Your task to perform on an android device: Show me popular videos on Youtube Image 0: 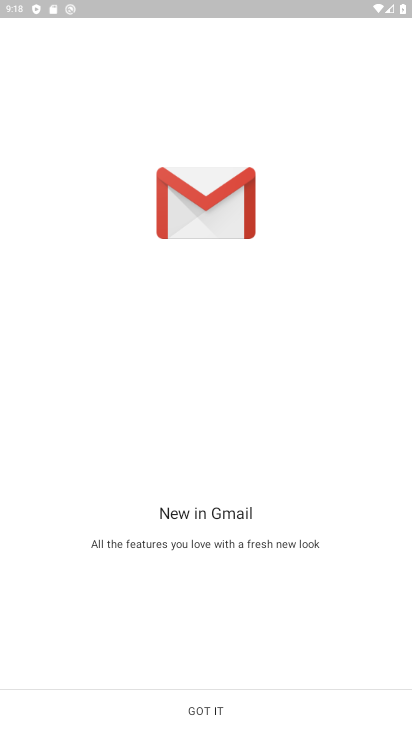
Step 0: click (220, 702)
Your task to perform on an android device: Show me popular videos on Youtube Image 1: 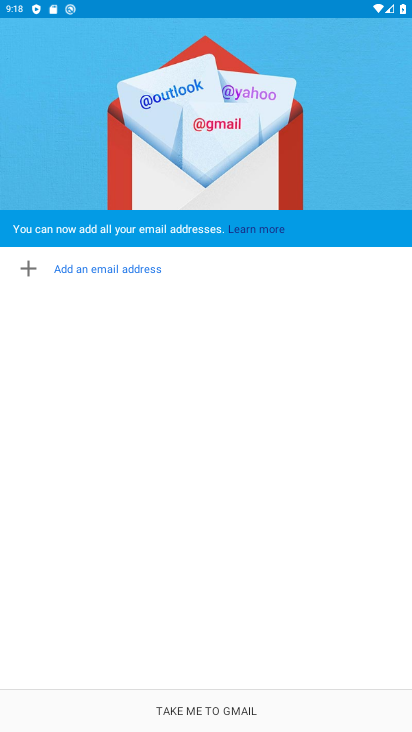
Step 1: press back button
Your task to perform on an android device: Show me popular videos on Youtube Image 2: 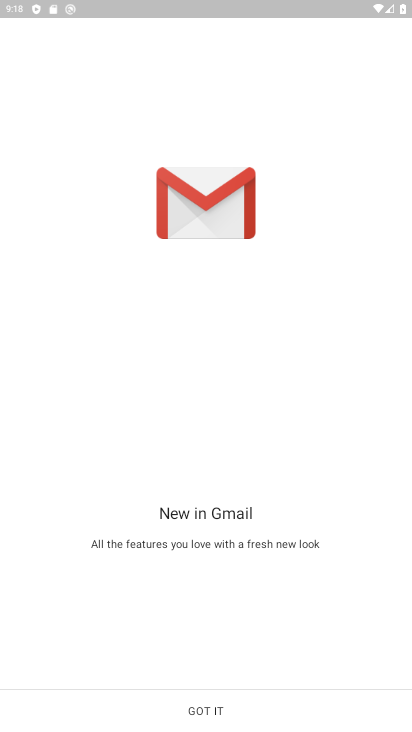
Step 2: press home button
Your task to perform on an android device: Show me popular videos on Youtube Image 3: 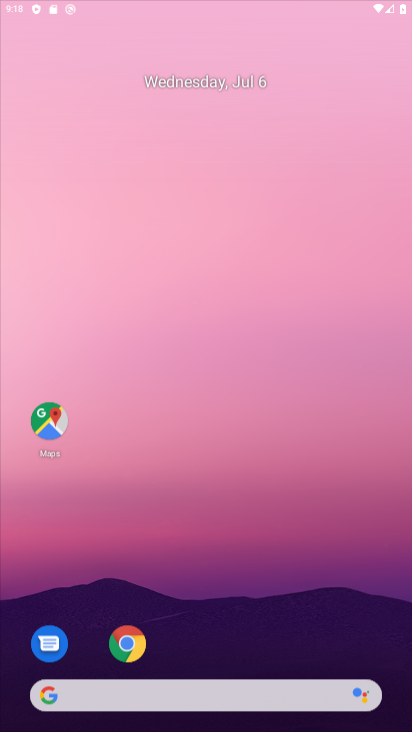
Step 3: click (195, 696)
Your task to perform on an android device: Show me popular videos on Youtube Image 4: 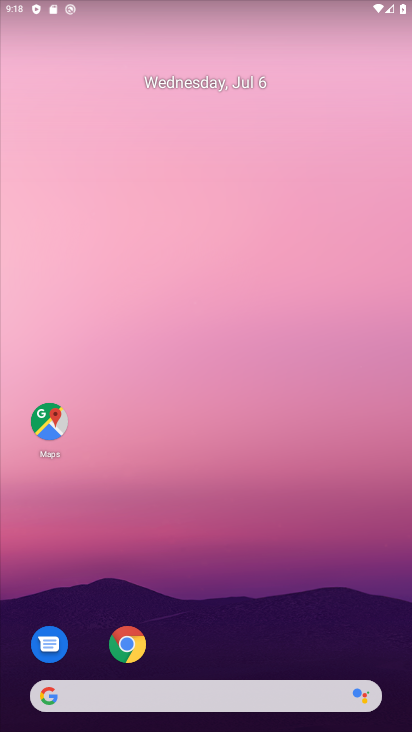
Step 4: drag from (199, 591) to (144, 135)
Your task to perform on an android device: Show me popular videos on Youtube Image 5: 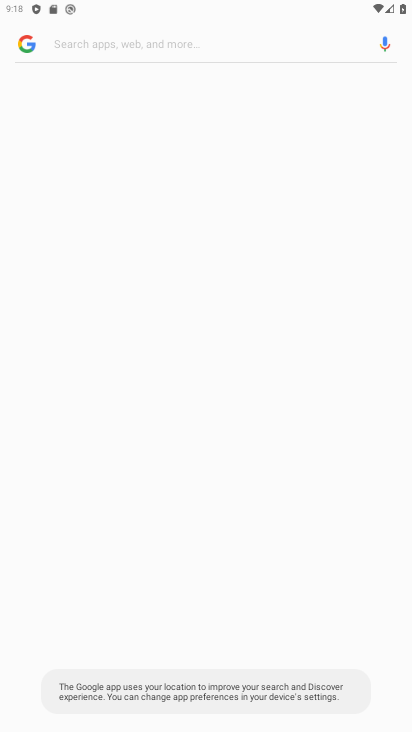
Step 5: press back button
Your task to perform on an android device: Show me popular videos on Youtube Image 6: 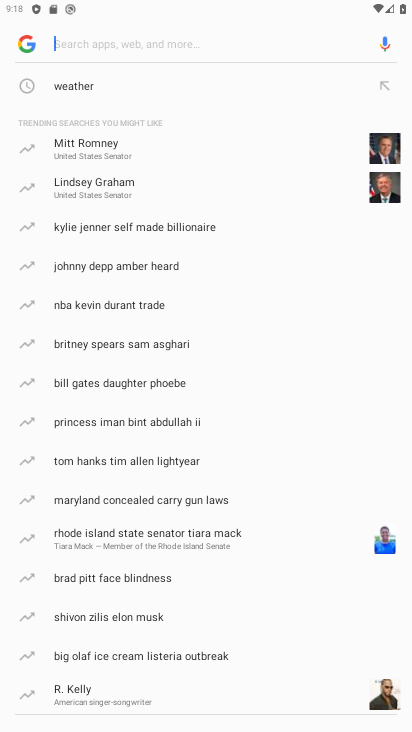
Step 6: press home button
Your task to perform on an android device: Show me popular videos on Youtube Image 7: 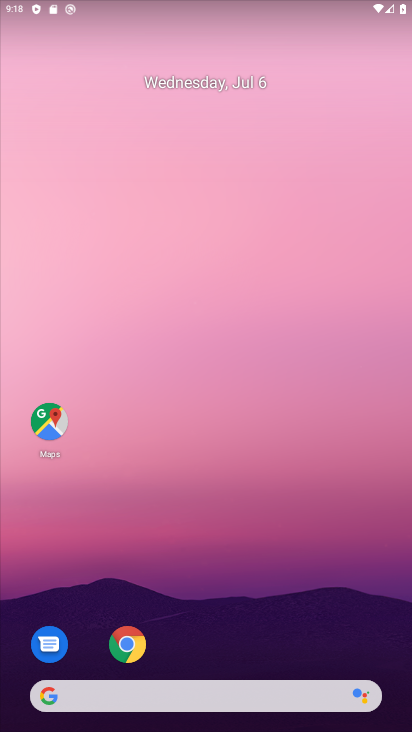
Step 7: press back button
Your task to perform on an android device: Show me popular videos on Youtube Image 8: 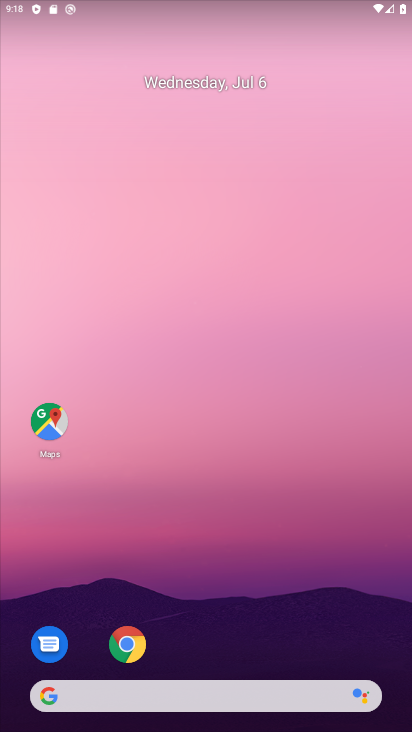
Step 8: drag from (301, 660) to (178, 208)
Your task to perform on an android device: Show me popular videos on Youtube Image 9: 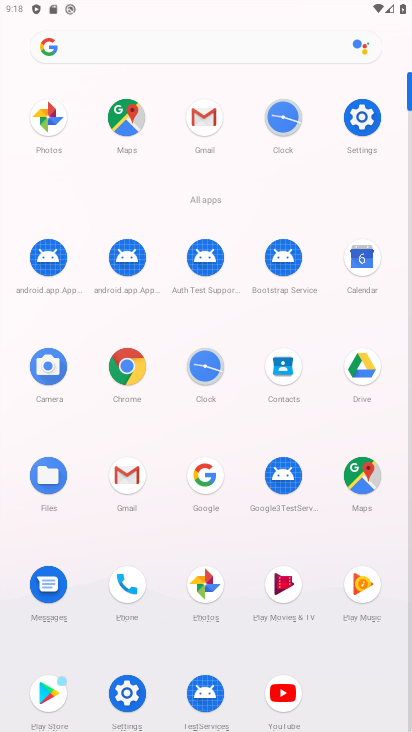
Step 9: click (288, 689)
Your task to perform on an android device: Show me popular videos on Youtube Image 10: 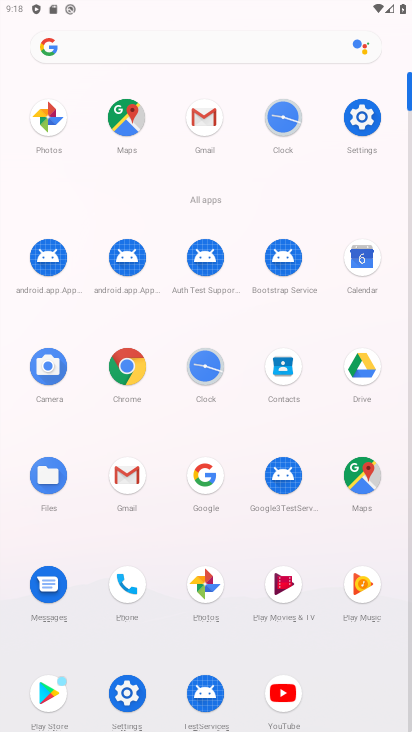
Step 10: click (287, 688)
Your task to perform on an android device: Show me popular videos on Youtube Image 11: 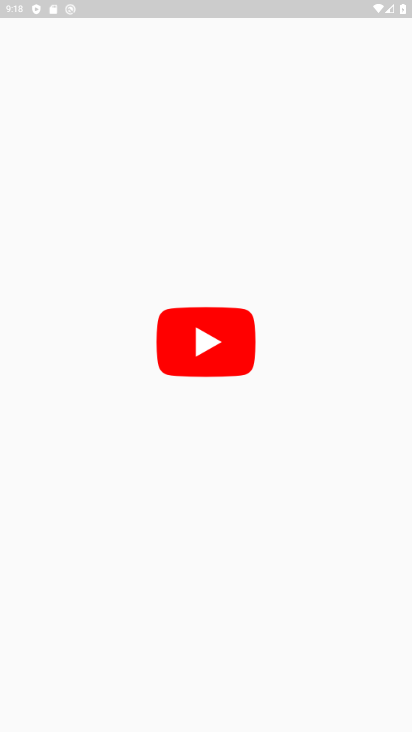
Step 11: click (287, 688)
Your task to perform on an android device: Show me popular videos on Youtube Image 12: 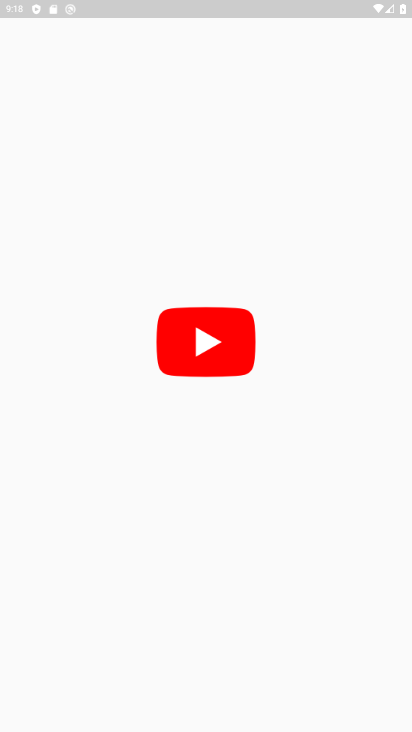
Step 12: click (286, 687)
Your task to perform on an android device: Show me popular videos on Youtube Image 13: 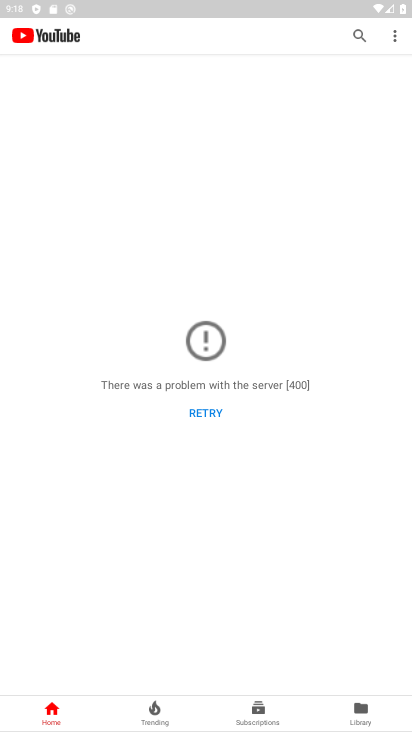
Step 13: click (216, 409)
Your task to perform on an android device: Show me popular videos on Youtube Image 14: 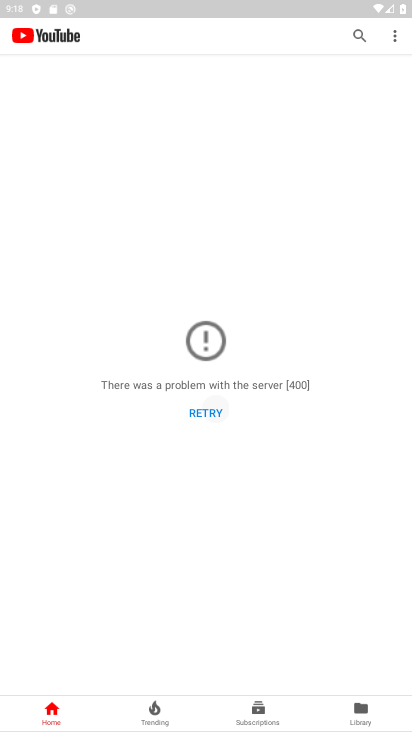
Step 14: click (213, 412)
Your task to perform on an android device: Show me popular videos on Youtube Image 15: 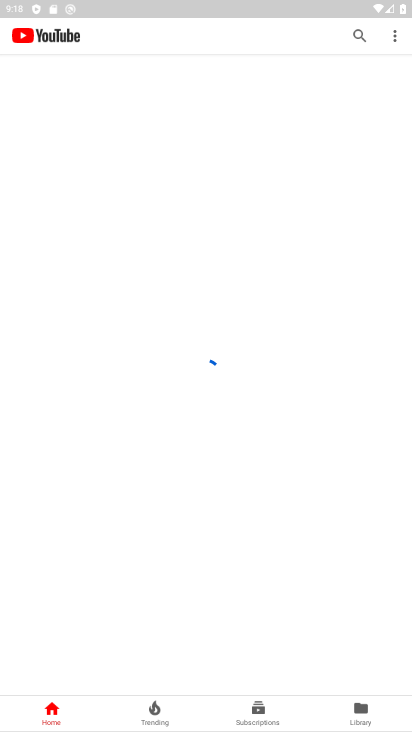
Step 15: click (214, 412)
Your task to perform on an android device: Show me popular videos on Youtube Image 16: 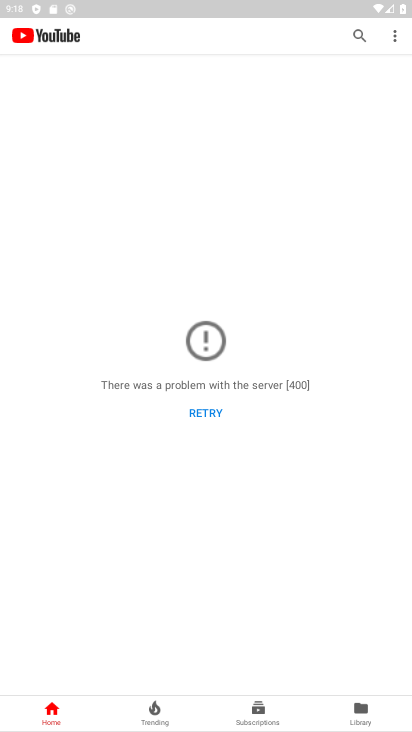
Step 16: click (216, 410)
Your task to perform on an android device: Show me popular videos on Youtube Image 17: 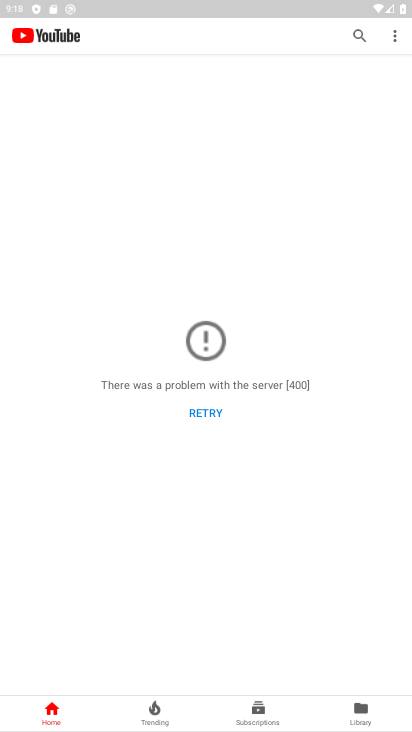
Step 17: task complete